Your task to perform on an android device: Open Wikipedia Image 0: 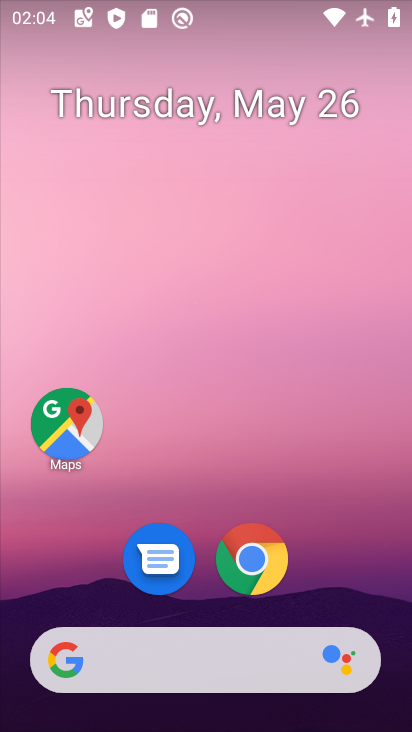
Step 0: click (249, 571)
Your task to perform on an android device: Open Wikipedia Image 1: 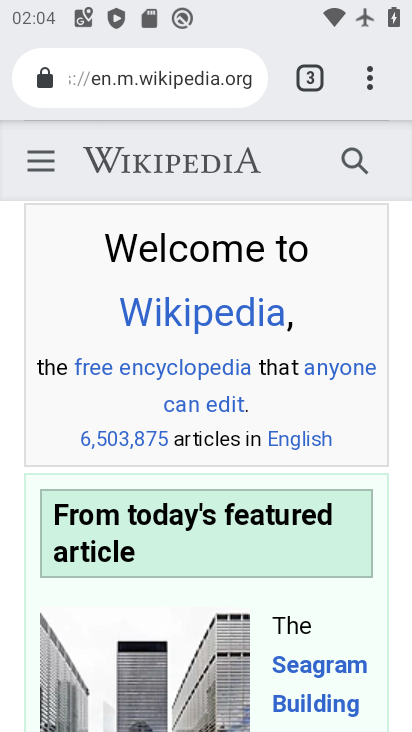
Step 1: task complete